Your task to perform on an android device: Add bose quietcomfort 35 to the cart on target.com Image 0: 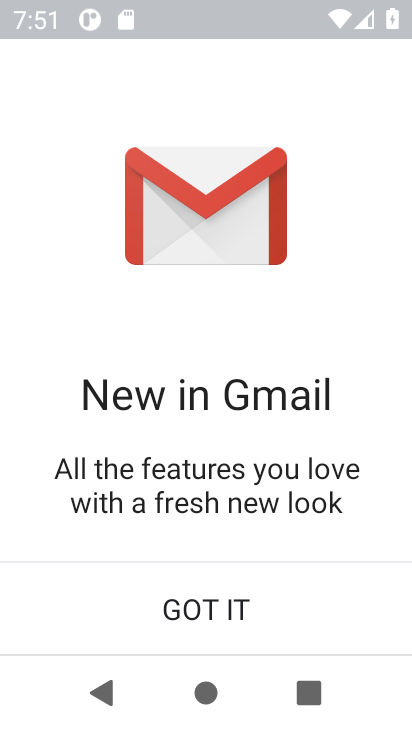
Step 0: press home button
Your task to perform on an android device: Add bose quietcomfort 35 to the cart on target.com Image 1: 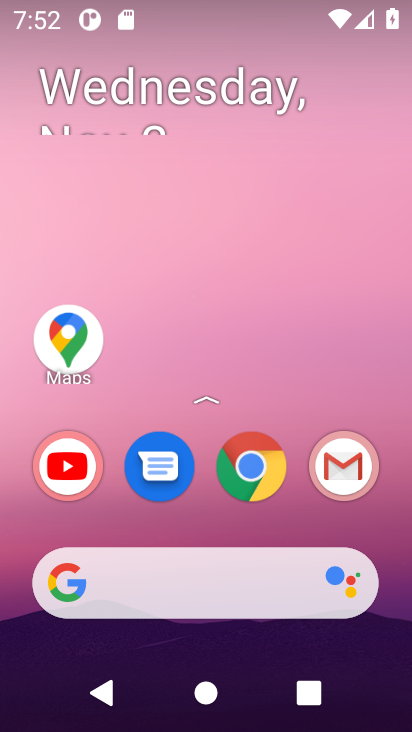
Step 1: click (193, 577)
Your task to perform on an android device: Add bose quietcomfort 35 to the cart on target.com Image 2: 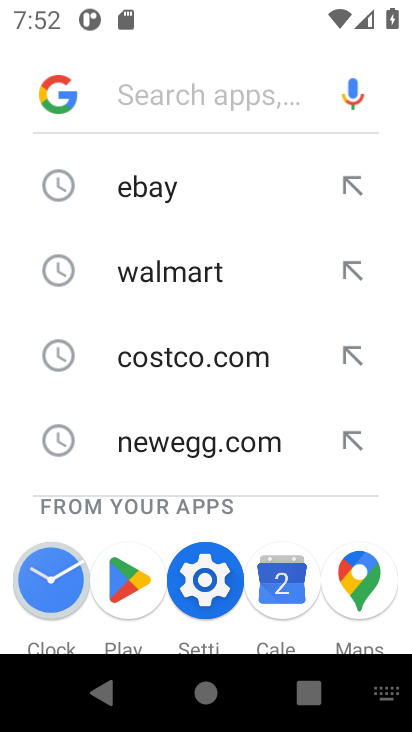
Step 2: type "target.com"
Your task to perform on an android device: Add bose quietcomfort 35 to the cart on target.com Image 3: 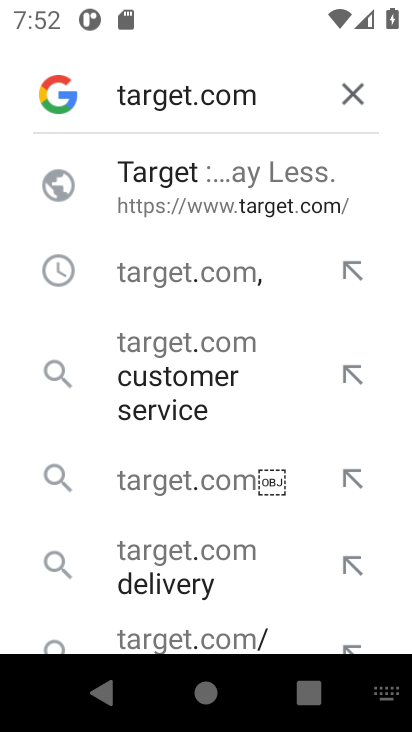
Step 3: click (199, 210)
Your task to perform on an android device: Add bose quietcomfort 35 to the cart on target.com Image 4: 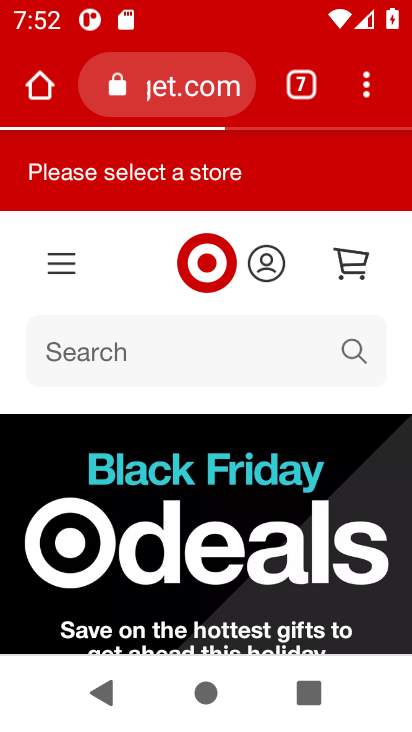
Step 4: click (139, 356)
Your task to perform on an android device: Add bose quietcomfort 35 to the cart on target.com Image 5: 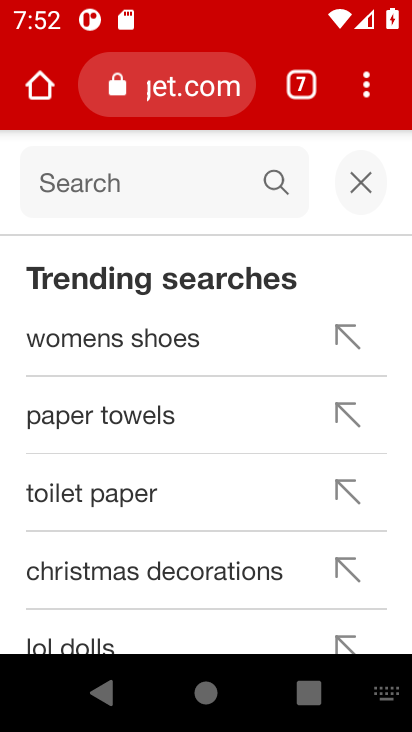
Step 5: type "bose quietcomfort 35"
Your task to perform on an android device: Add bose quietcomfort 35 to the cart on target.com Image 6: 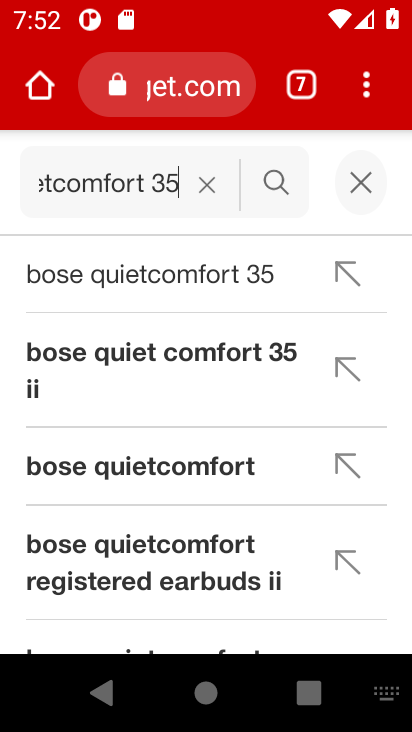
Step 6: type ""
Your task to perform on an android device: Add bose quietcomfort 35 to the cart on target.com Image 7: 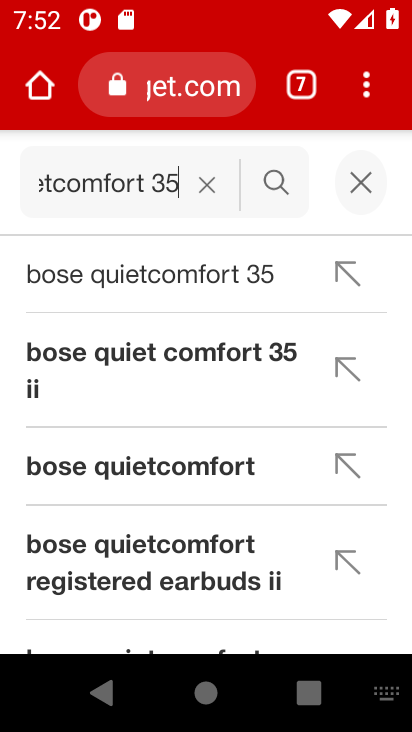
Step 7: click (279, 177)
Your task to perform on an android device: Add bose quietcomfort 35 to the cart on target.com Image 8: 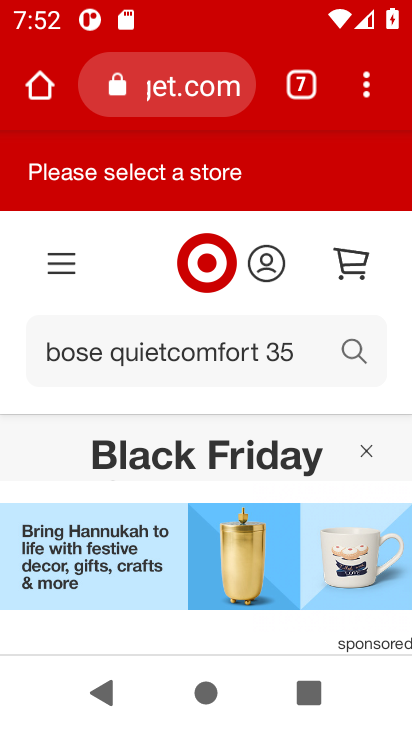
Step 8: drag from (254, 556) to (277, 196)
Your task to perform on an android device: Add bose quietcomfort 35 to the cart on target.com Image 9: 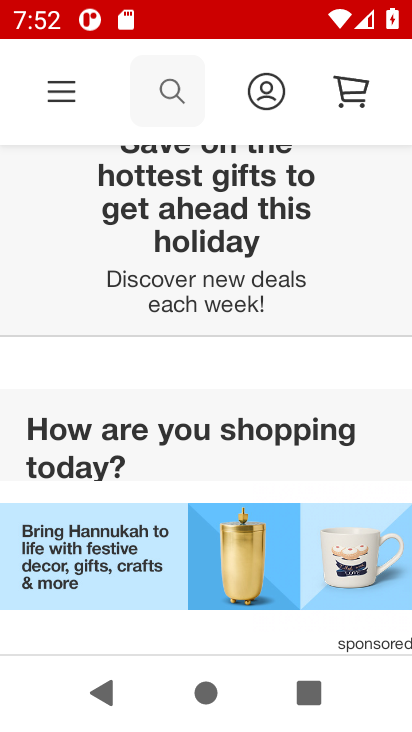
Step 9: drag from (247, 372) to (255, 230)
Your task to perform on an android device: Add bose quietcomfort 35 to the cart on target.com Image 10: 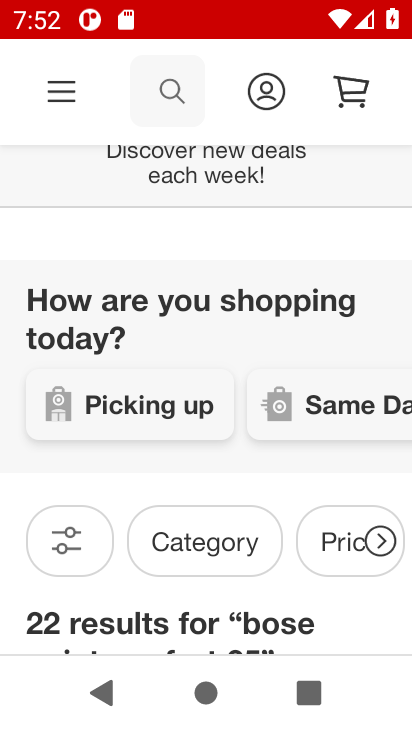
Step 10: drag from (233, 518) to (233, 278)
Your task to perform on an android device: Add bose quietcomfort 35 to the cart on target.com Image 11: 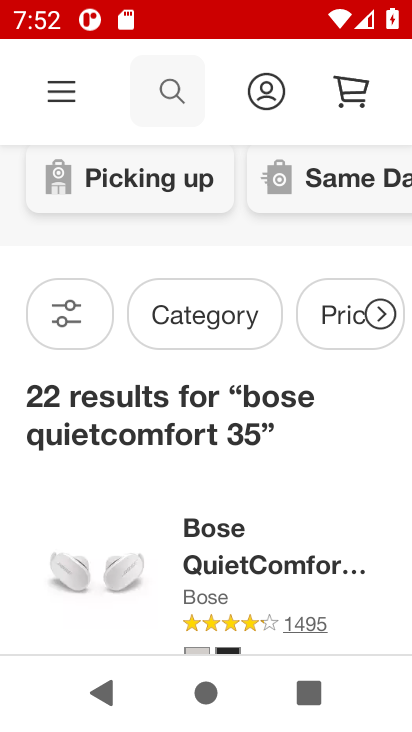
Step 11: click (251, 541)
Your task to perform on an android device: Add bose quietcomfort 35 to the cart on target.com Image 12: 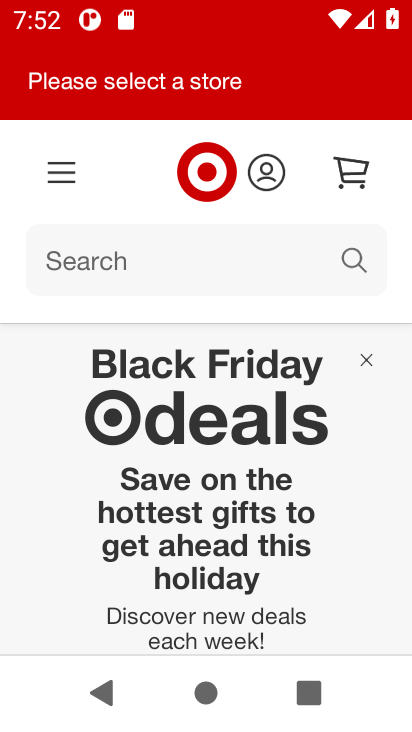
Step 12: drag from (236, 515) to (243, 188)
Your task to perform on an android device: Add bose quietcomfort 35 to the cart on target.com Image 13: 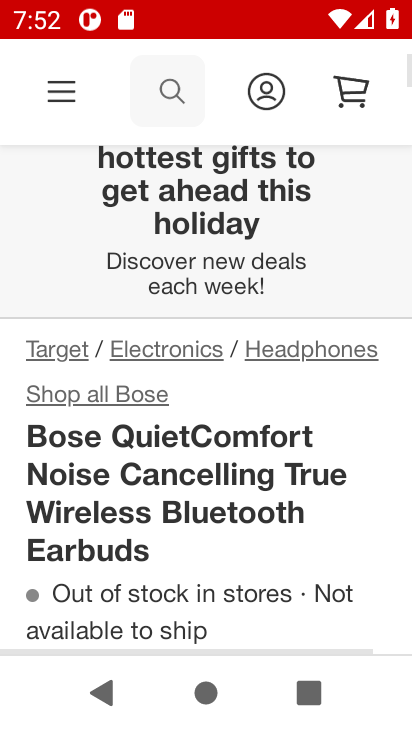
Step 13: drag from (241, 547) to (224, 202)
Your task to perform on an android device: Add bose quietcomfort 35 to the cart on target.com Image 14: 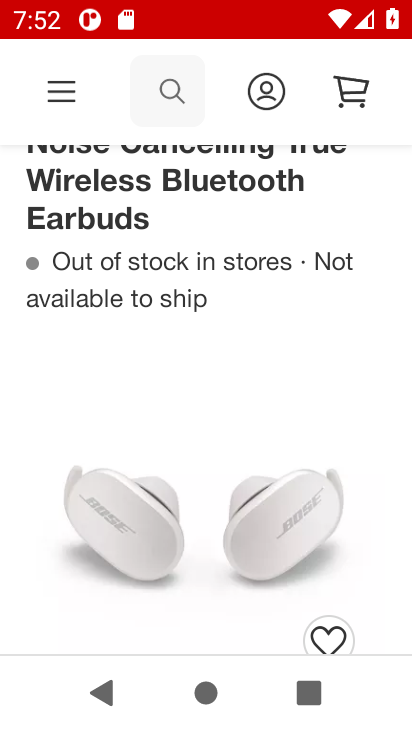
Step 14: drag from (243, 500) to (263, 171)
Your task to perform on an android device: Add bose quietcomfort 35 to the cart on target.com Image 15: 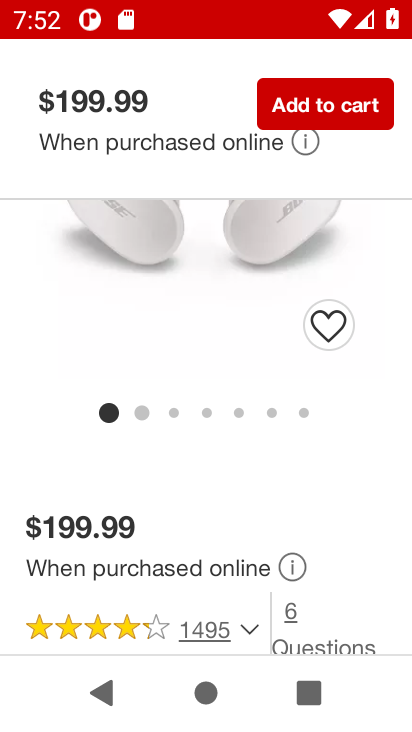
Step 15: drag from (265, 530) to (284, 213)
Your task to perform on an android device: Add bose quietcomfort 35 to the cart on target.com Image 16: 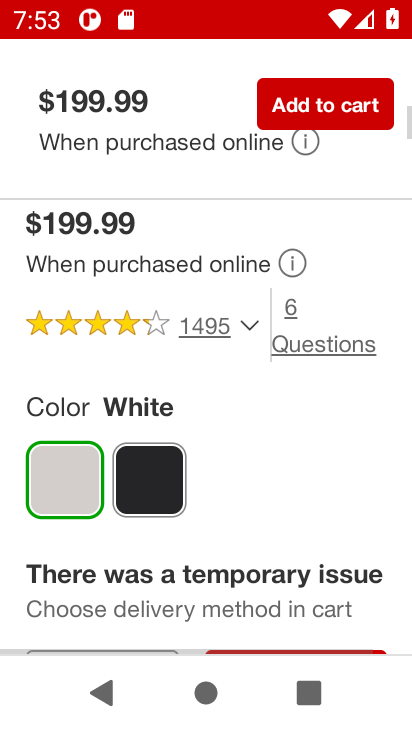
Step 16: click (310, 102)
Your task to perform on an android device: Add bose quietcomfort 35 to the cart on target.com Image 17: 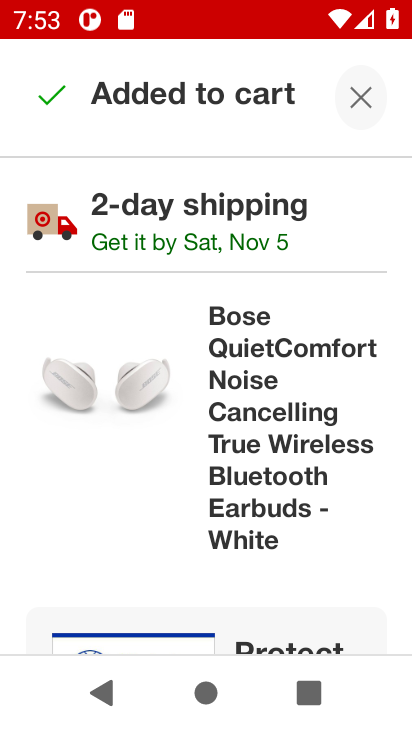
Step 17: task complete